Your task to perform on an android device: find photos in the google photos app Image 0: 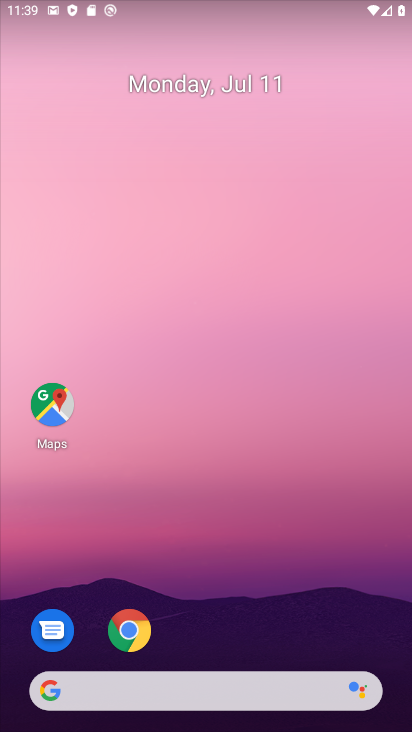
Step 0: click (173, 147)
Your task to perform on an android device: find photos in the google photos app Image 1: 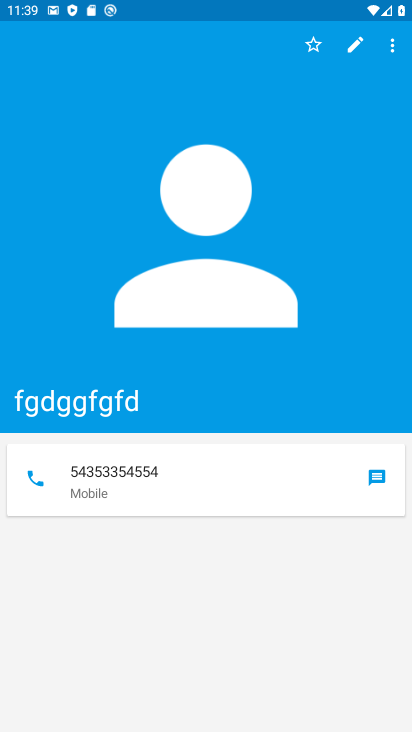
Step 1: press home button
Your task to perform on an android device: find photos in the google photos app Image 2: 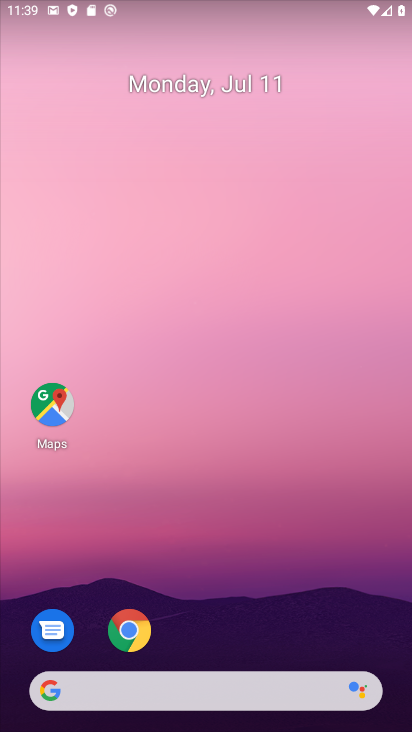
Step 2: drag from (306, 651) to (192, 165)
Your task to perform on an android device: find photos in the google photos app Image 3: 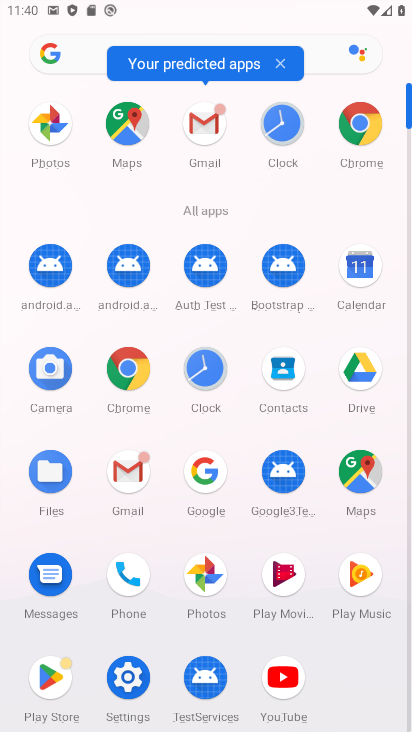
Step 3: click (37, 146)
Your task to perform on an android device: find photos in the google photos app Image 4: 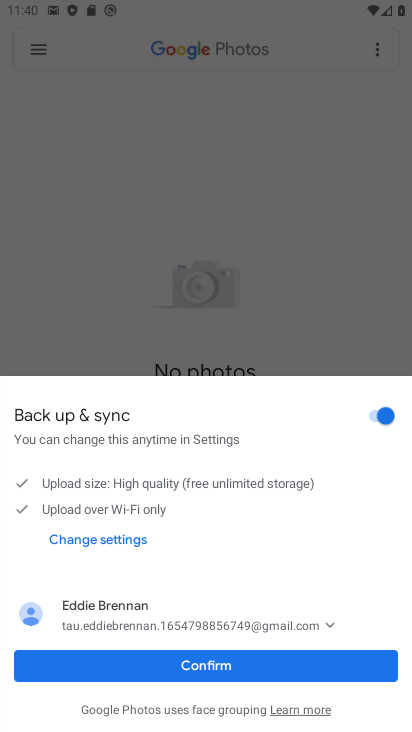
Step 4: click (297, 666)
Your task to perform on an android device: find photos in the google photos app Image 5: 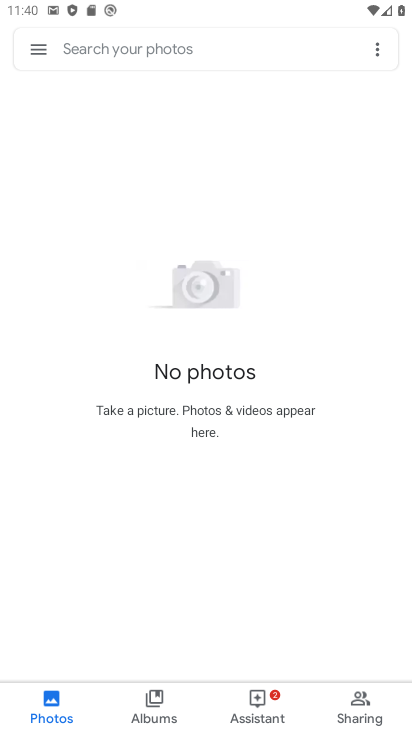
Step 5: task complete